Your task to perform on an android device: uninstall "Instagram" Image 0: 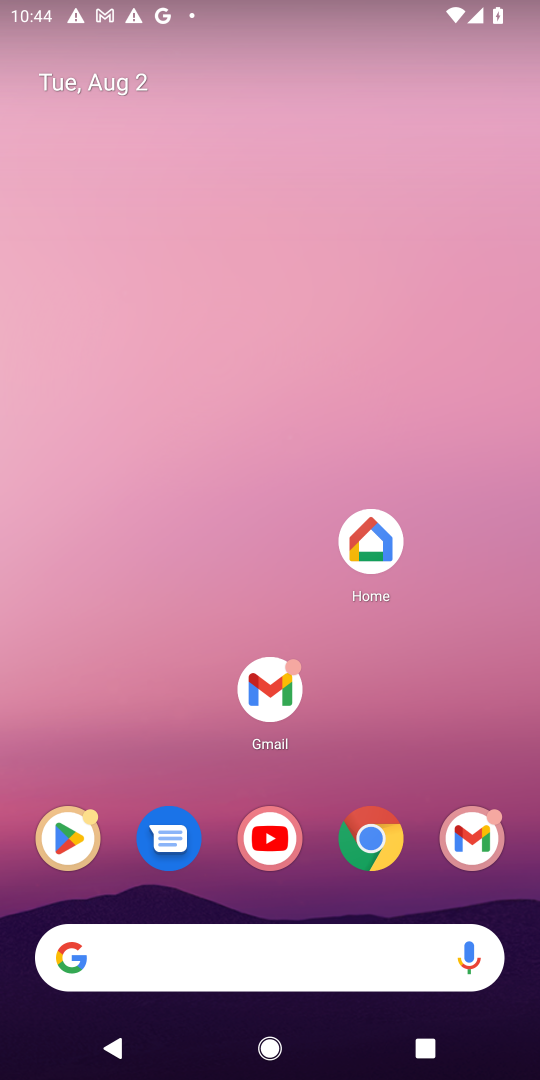
Step 0: press home button
Your task to perform on an android device: uninstall "Instagram" Image 1: 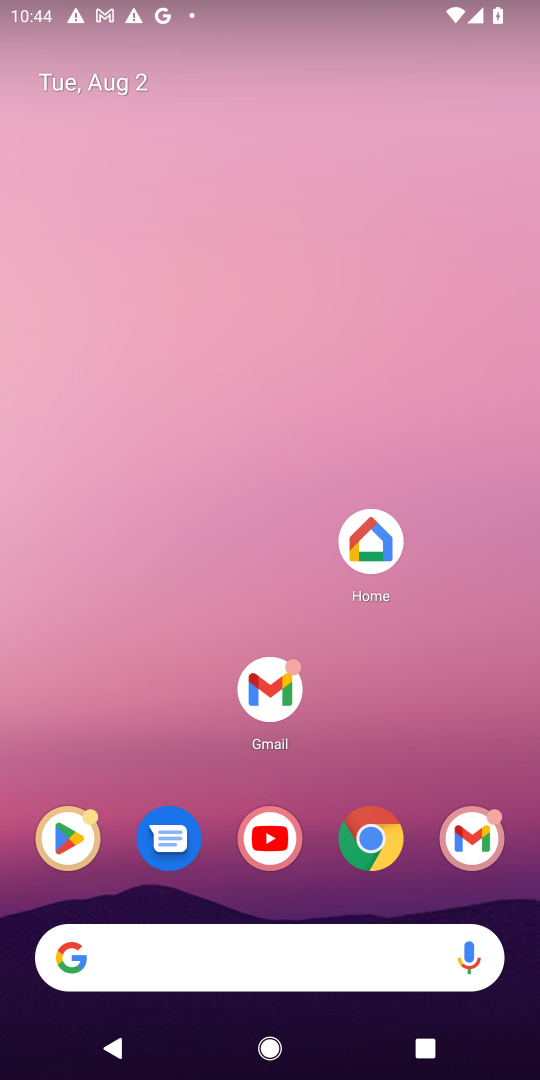
Step 1: drag from (194, 681) to (235, 110)
Your task to perform on an android device: uninstall "Instagram" Image 2: 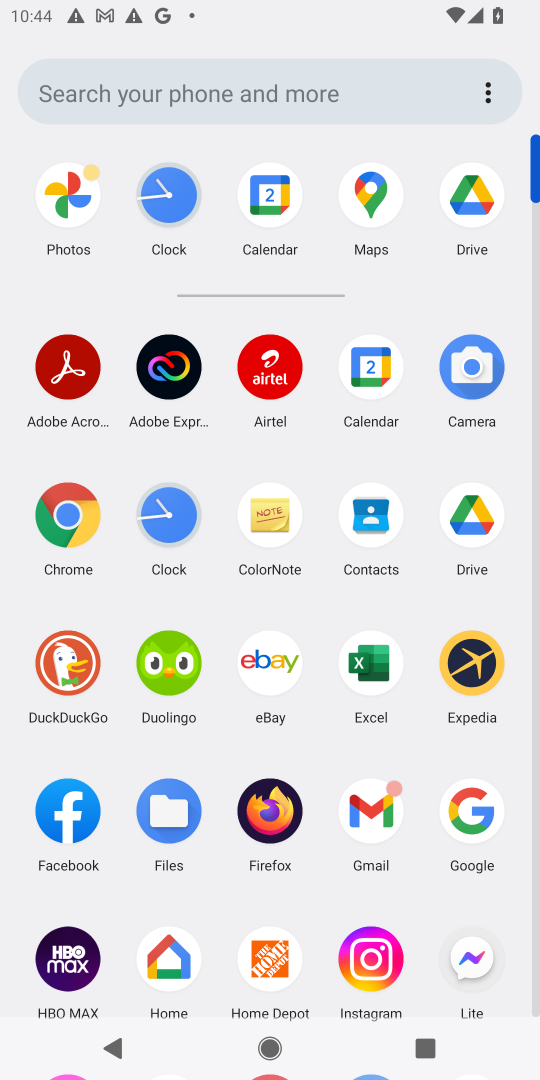
Step 2: drag from (205, 914) to (220, 597)
Your task to perform on an android device: uninstall "Instagram" Image 3: 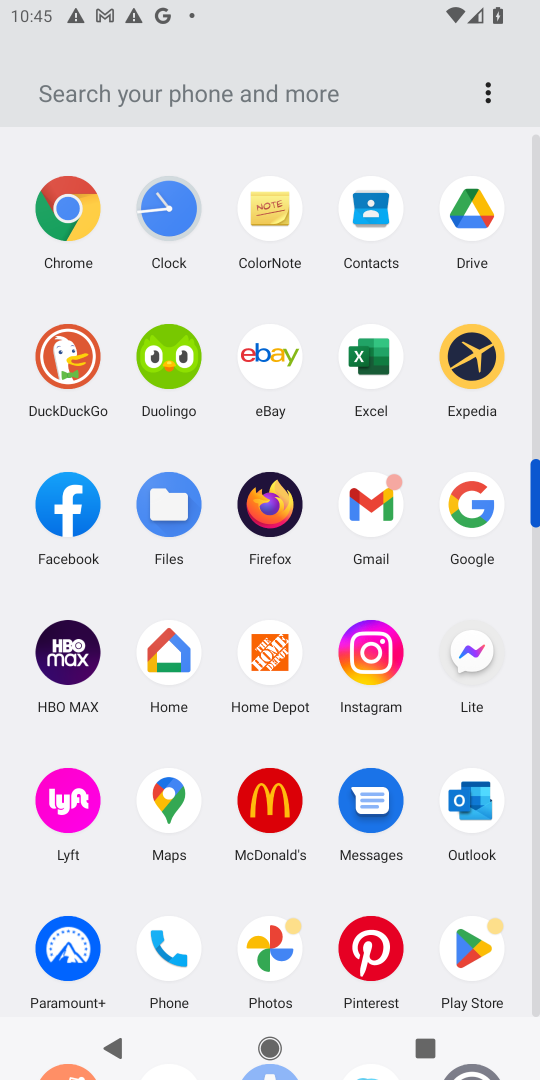
Step 3: drag from (201, 727) to (201, 653)
Your task to perform on an android device: uninstall "Instagram" Image 4: 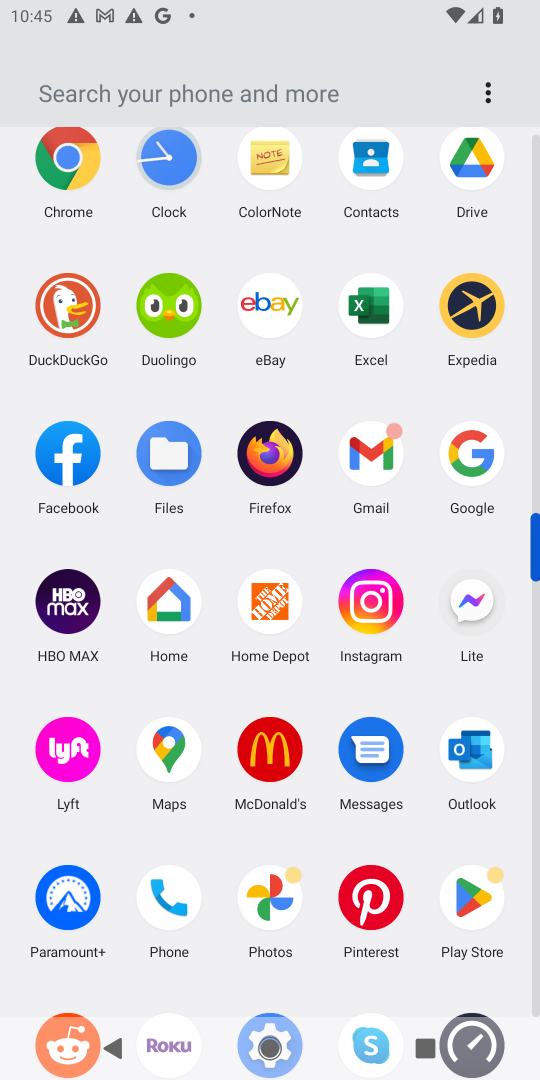
Step 4: drag from (204, 973) to (212, 635)
Your task to perform on an android device: uninstall "Instagram" Image 5: 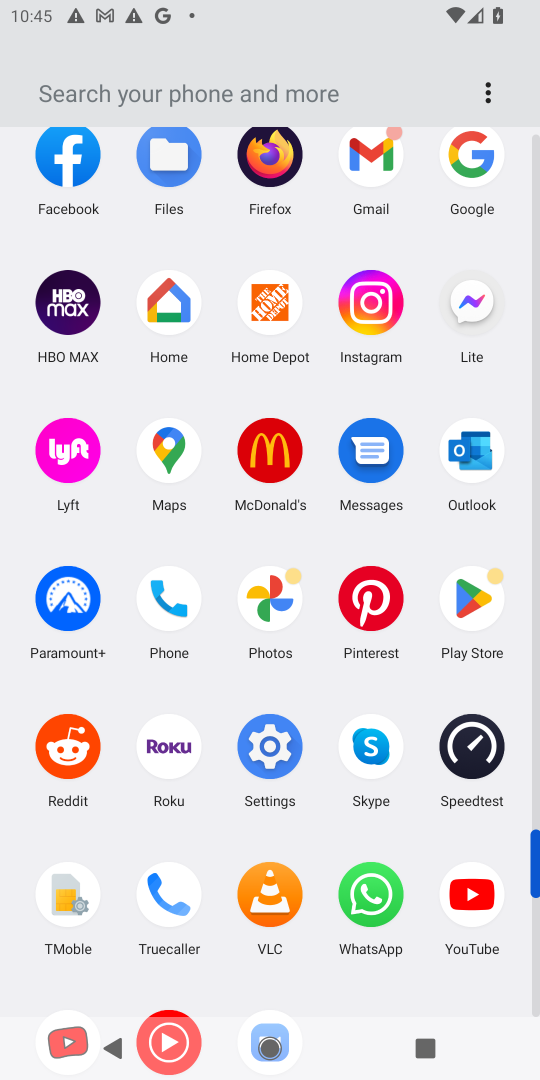
Step 5: click (469, 599)
Your task to perform on an android device: uninstall "Instagram" Image 6: 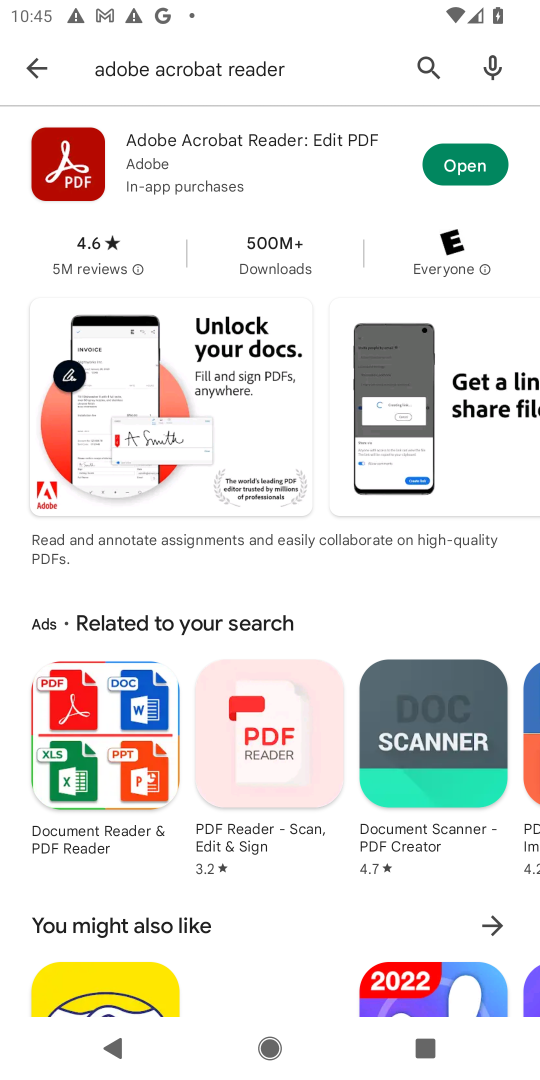
Step 6: click (425, 65)
Your task to perform on an android device: uninstall "Instagram" Image 7: 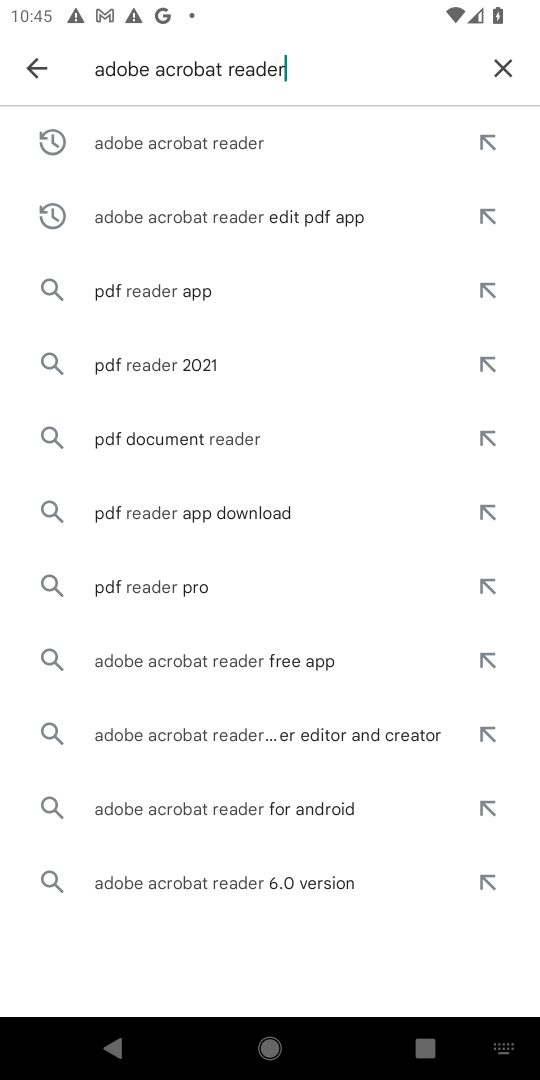
Step 7: click (509, 65)
Your task to perform on an android device: uninstall "Instagram" Image 8: 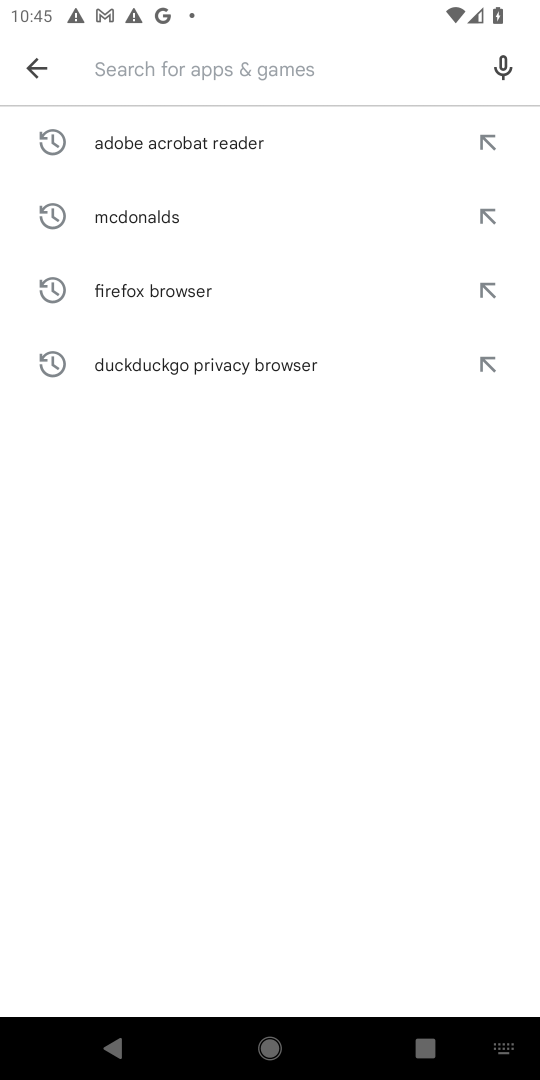
Step 8: click (376, 74)
Your task to perform on an android device: uninstall "Instagram" Image 9: 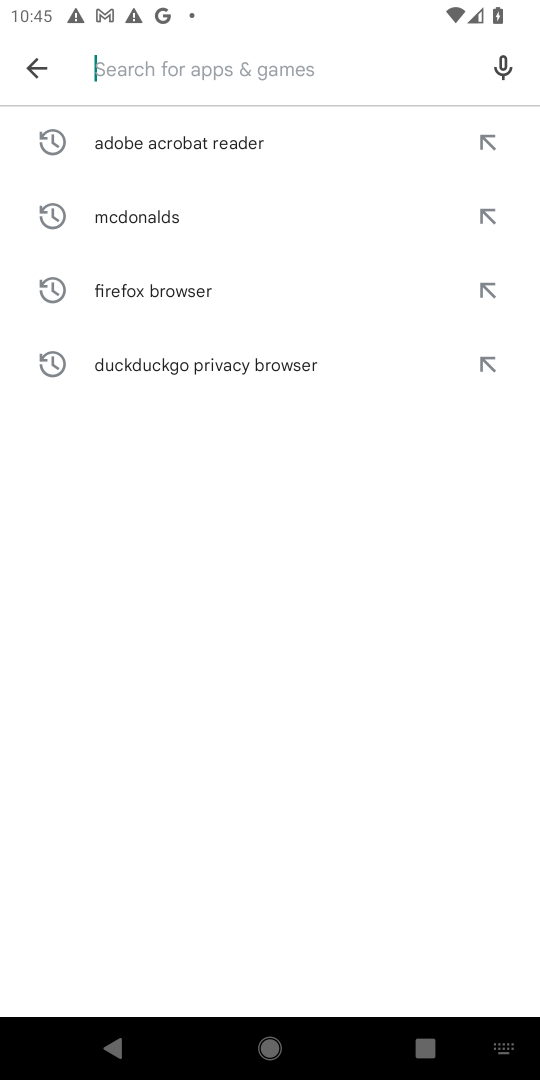
Step 9: type "instagram"
Your task to perform on an android device: uninstall "Instagram" Image 10: 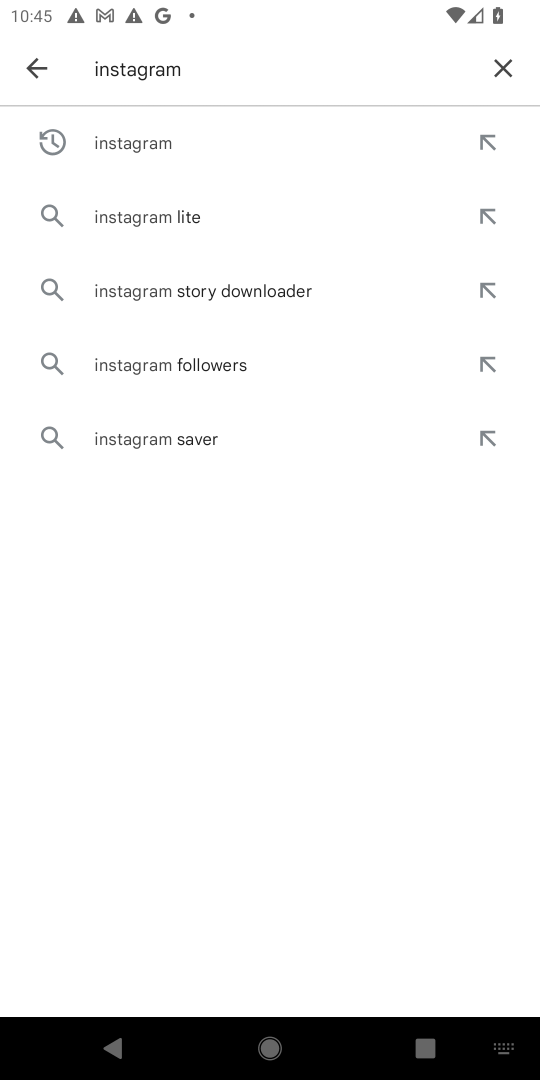
Step 10: click (201, 143)
Your task to perform on an android device: uninstall "Instagram" Image 11: 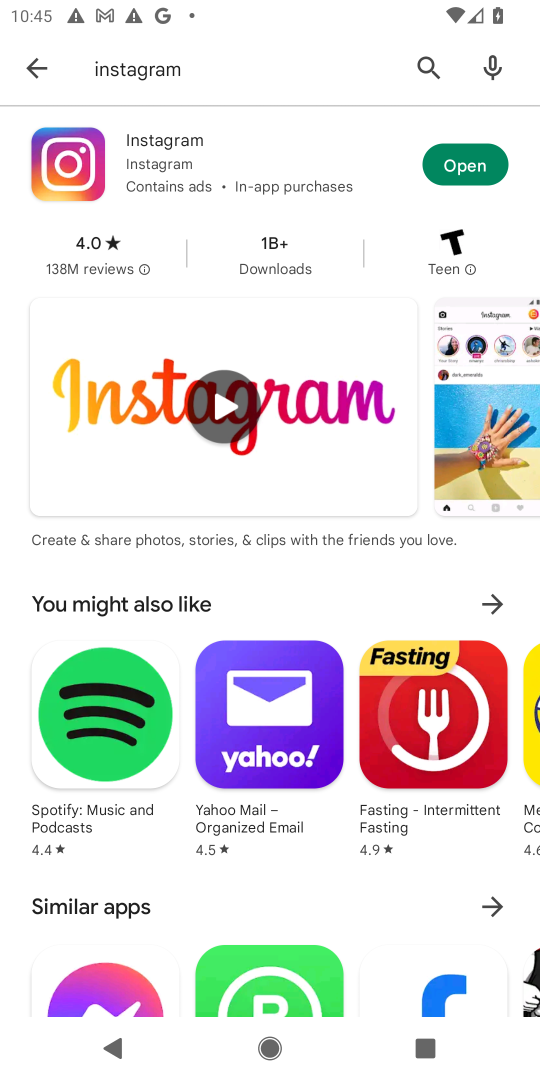
Step 11: task complete